Your task to perform on an android device: Do I have any events today? Image 0: 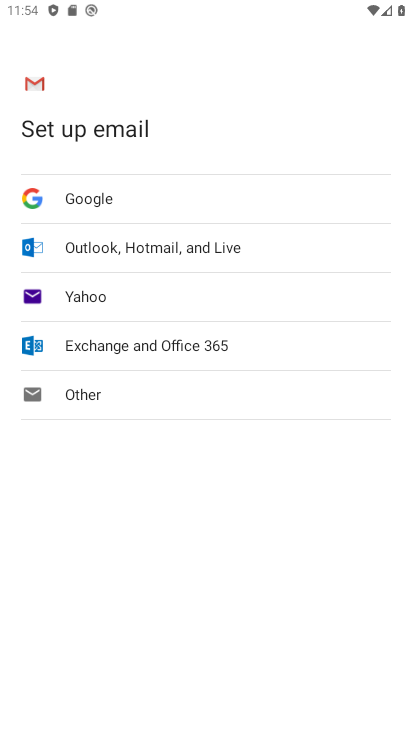
Step 0: drag from (204, 634) to (408, 560)
Your task to perform on an android device: Do I have any events today? Image 1: 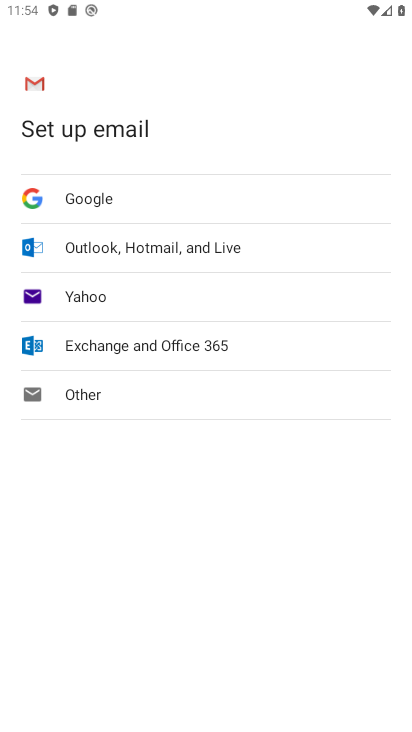
Step 1: press home button
Your task to perform on an android device: Do I have any events today? Image 2: 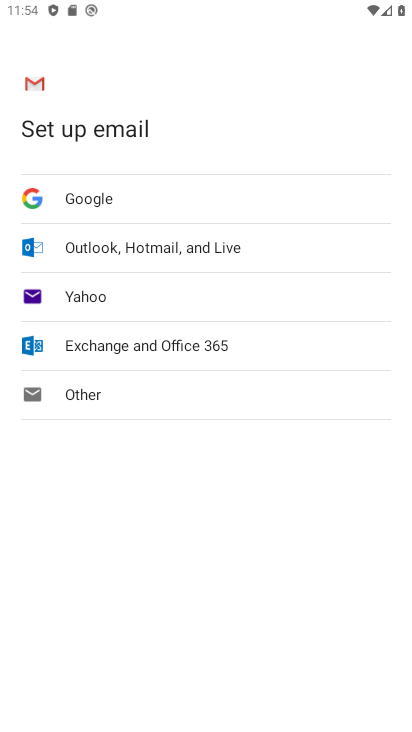
Step 2: drag from (408, 560) to (383, 394)
Your task to perform on an android device: Do I have any events today? Image 3: 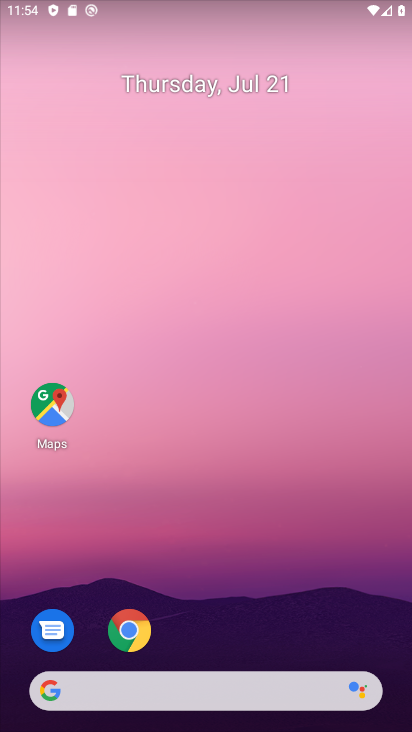
Step 3: drag from (207, 625) to (127, 165)
Your task to perform on an android device: Do I have any events today? Image 4: 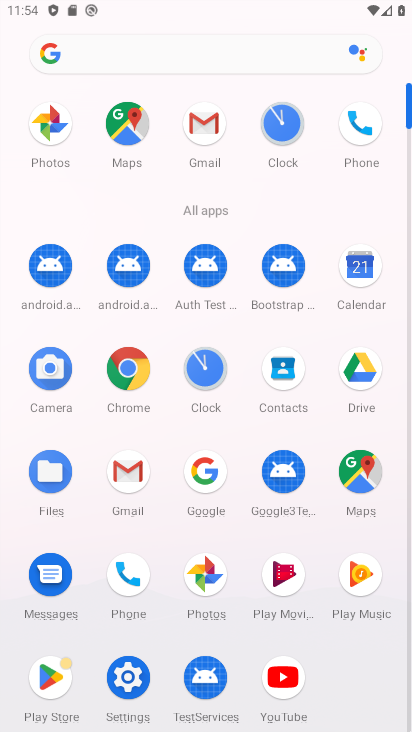
Step 4: click (351, 268)
Your task to perform on an android device: Do I have any events today? Image 5: 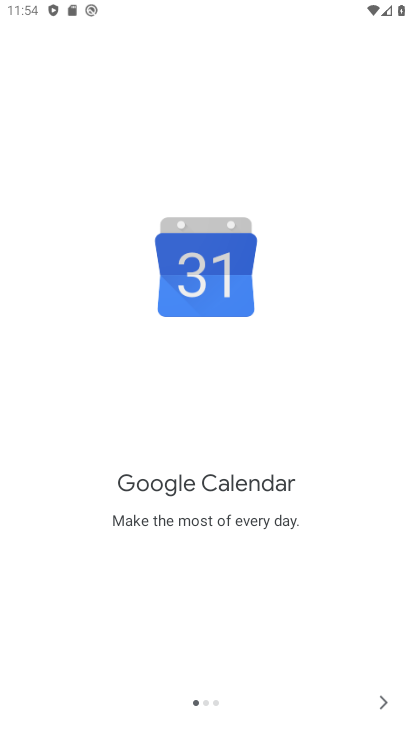
Step 5: click (382, 700)
Your task to perform on an android device: Do I have any events today? Image 6: 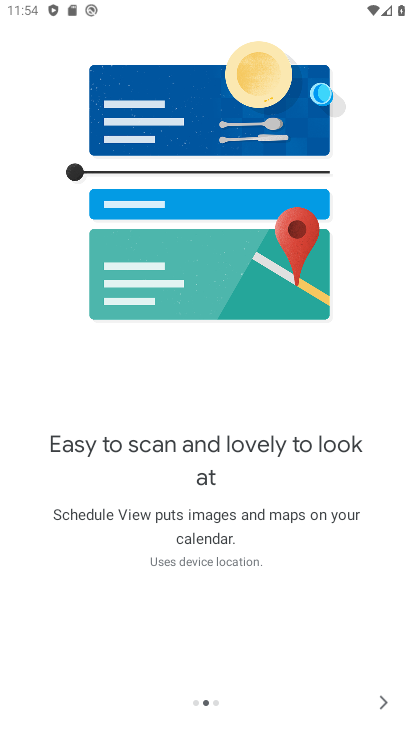
Step 6: click (382, 700)
Your task to perform on an android device: Do I have any events today? Image 7: 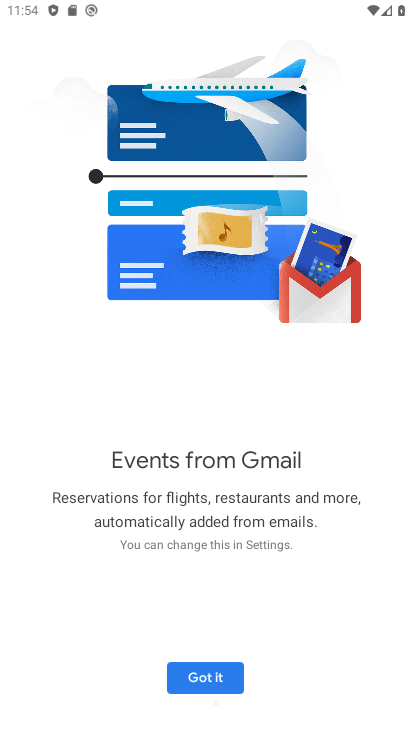
Step 7: click (382, 700)
Your task to perform on an android device: Do I have any events today? Image 8: 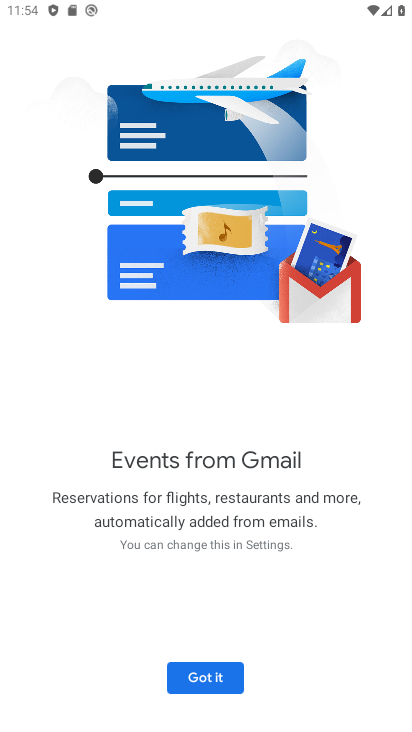
Step 8: click (189, 675)
Your task to perform on an android device: Do I have any events today? Image 9: 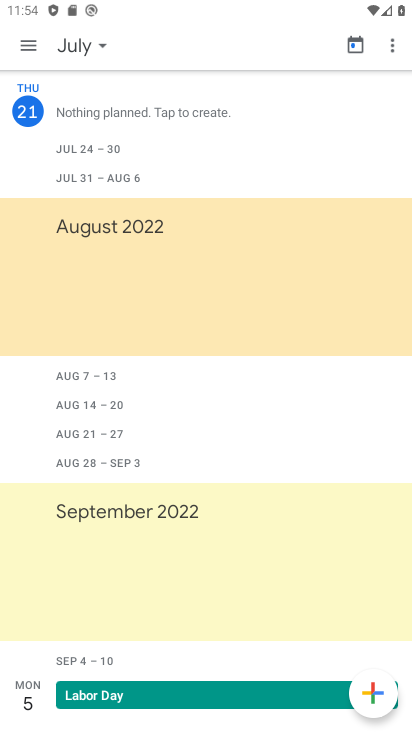
Step 9: click (26, 35)
Your task to perform on an android device: Do I have any events today? Image 10: 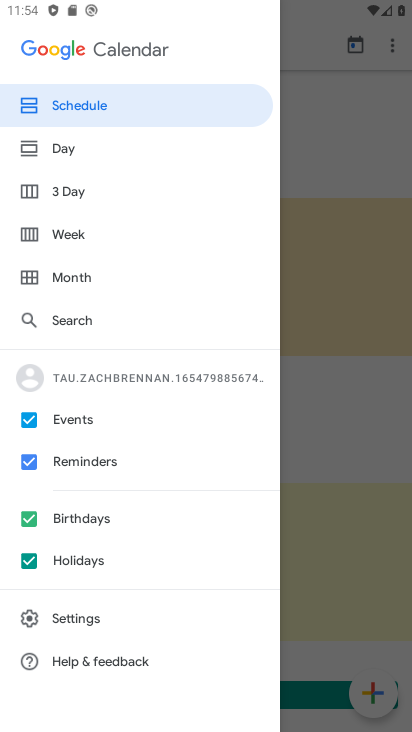
Step 10: click (61, 146)
Your task to perform on an android device: Do I have any events today? Image 11: 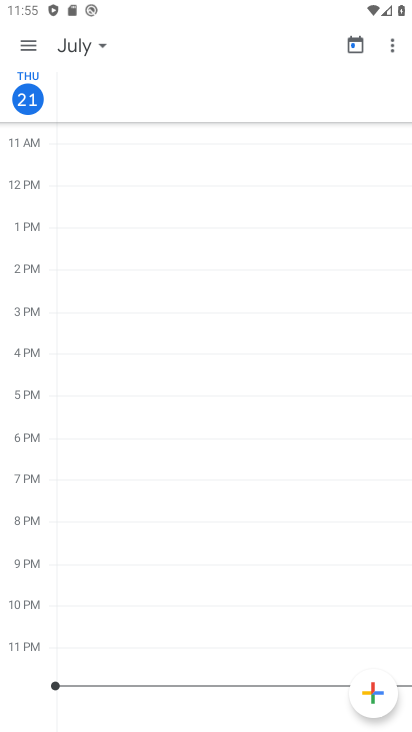
Step 11: task complete